Your task to perform on an android device: Do I have any events tomorrow? Image 0: 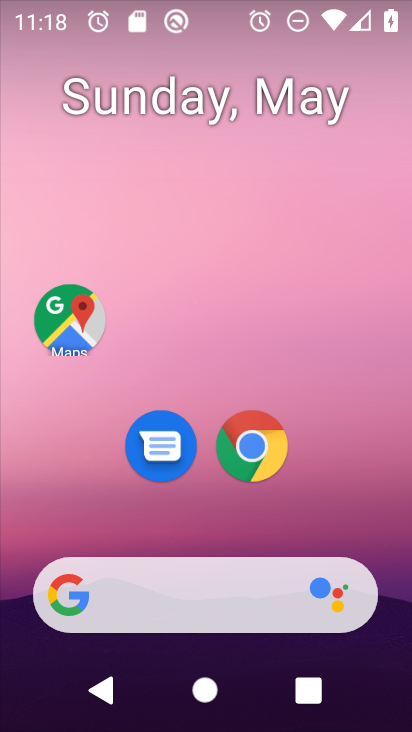
Step 0: drag from (339, 458) to (188, 16)
Your task to perform on an android device: Do I have any events tomorrow? Image 1: 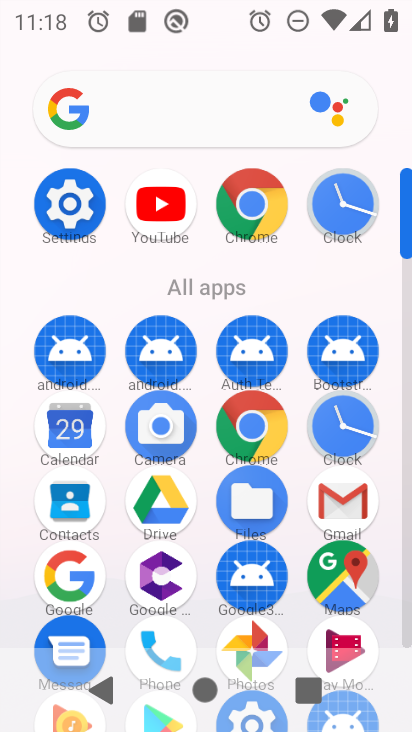
Step 1: drag from (17, 531) to (17, 217)
Your task to perform on an android device: Do I have any events tomorrow? Image 2: 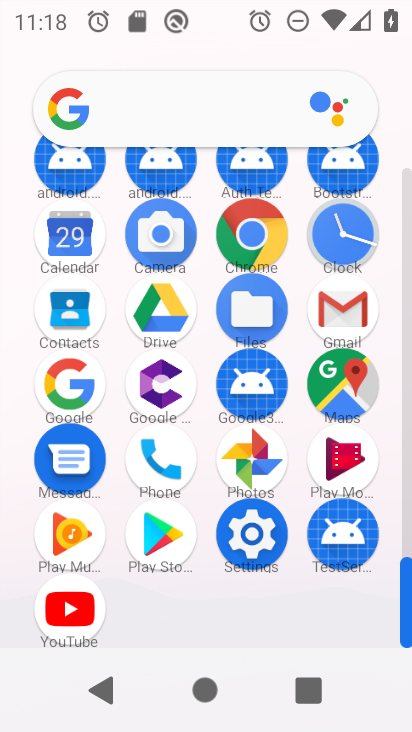
Step 2: drag from (19, 547) to (19, 163)
Your task to perform on an android device: Do I have any events tomorrow? Image 3: 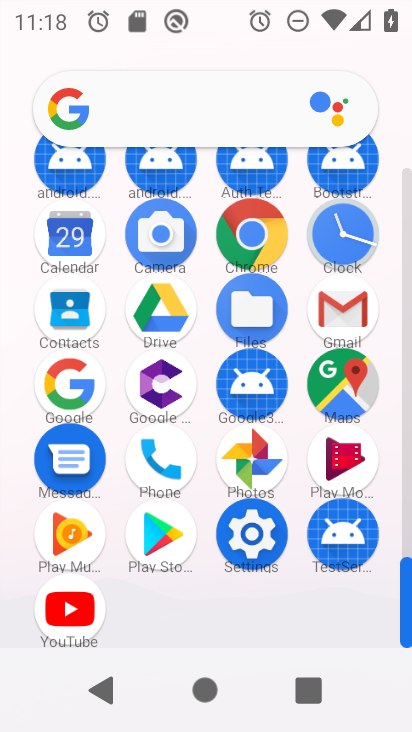
Step 3: drag from (19, 163) to (10, 546)
Your task to perform on an android device: Do I have any events tomorrow? Image 4: 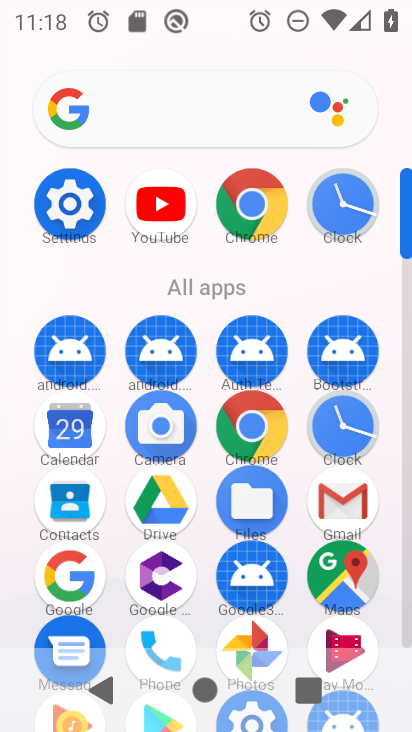
Step 4: drag from (23, 348) to (22, 229)
Your task to perform on an android device: Do I have any events tomorrow? Image 5: 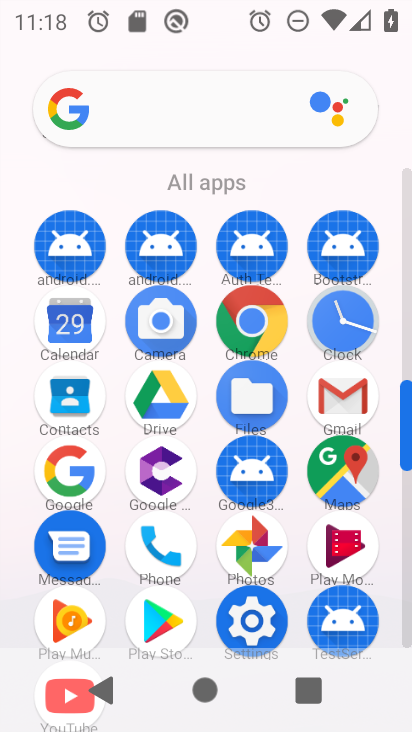
Step 5: drag from (13, 553) to (34, 250)
Your task to perform on an android device: Do I have any events tomorrow? Image 6: 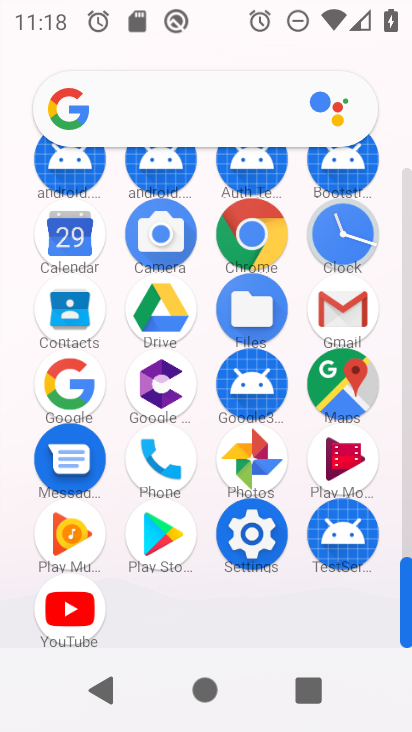
Step 6: click (70, 236)
Your task to perform on an android device: Do I have any events tomorrow? Image 7: 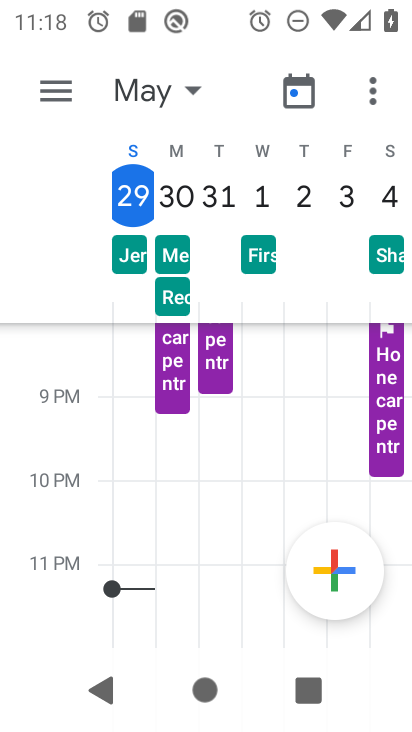
Step 7: click (171, 198)
Your task to perform on an android device: Do I have any events tomorrow? Image 8: 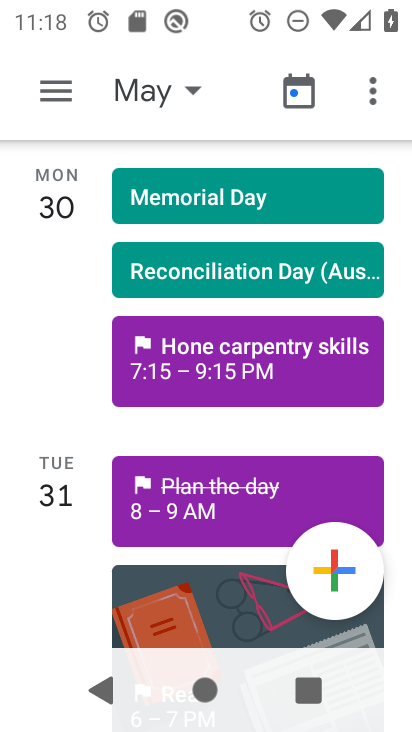
Step 8: task complete